Your task to perform on an android device: search for starred emails in the gmail app Image 0: 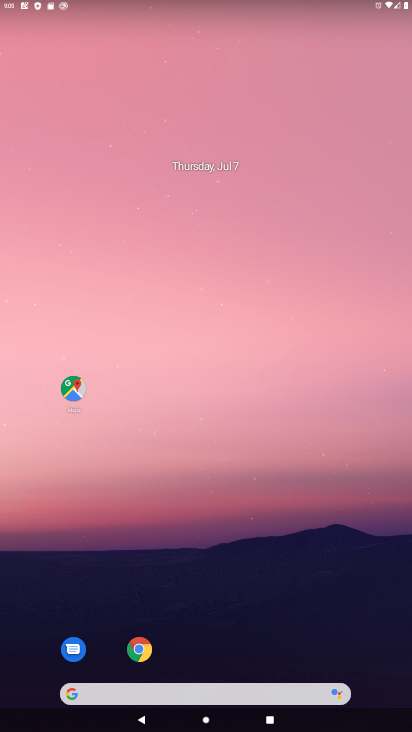
Step 0: drag from (338, 661) to (288, 162)
Your task to perform on an android device: search for starred emails in the gmail app Image 1: 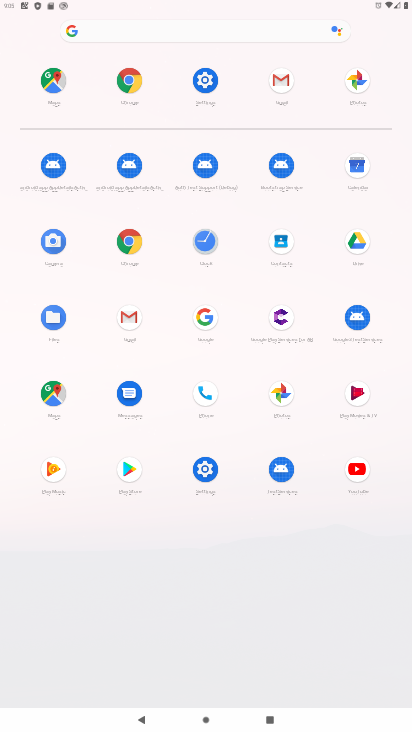
Step 1: click (122, 310)
Your task to perform on an android device: search for starred emails in the gmail app Image 2: 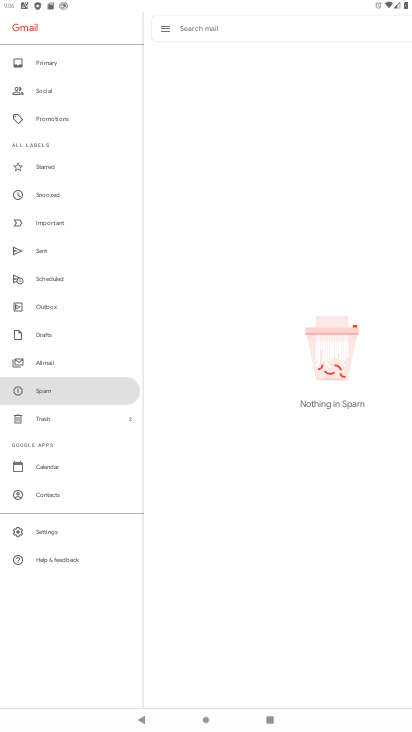
Step 2: click (59, 167)
Your task to perform on an android device: search for starred emails in the gmail app Image 3: 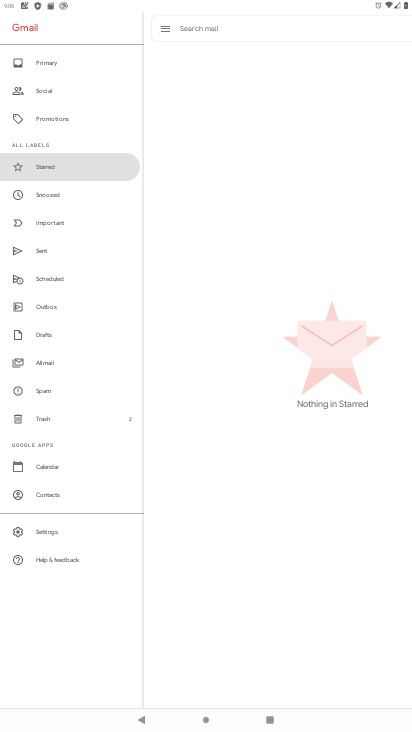
Step 3: task complete